Your task to perform on an android device: add a contact in the contacts app Image 0: 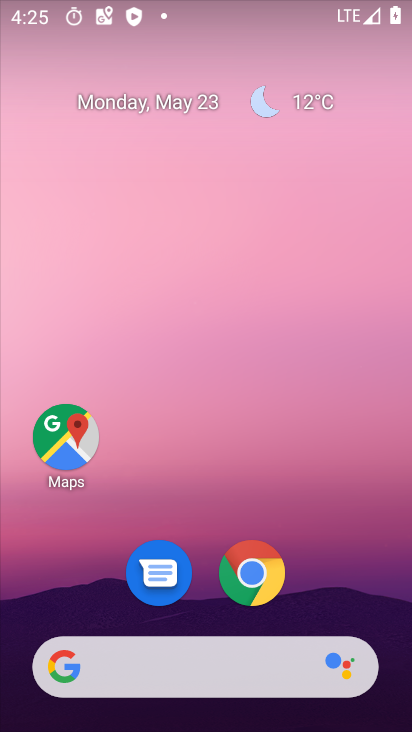
Step 0: drag from (77, 544) to (277, 222)
Your task to perform on an android device: add a contact in the contacts app Image 1: 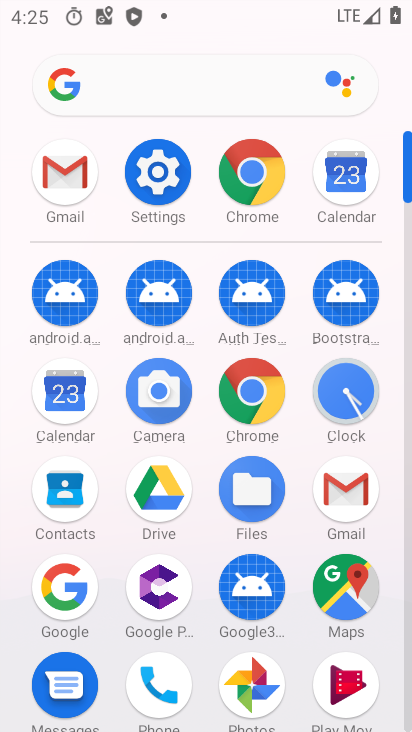
Step 1: click (163, 686)
Your task to perform on an android device: add a contact in the contacts app Image 2: 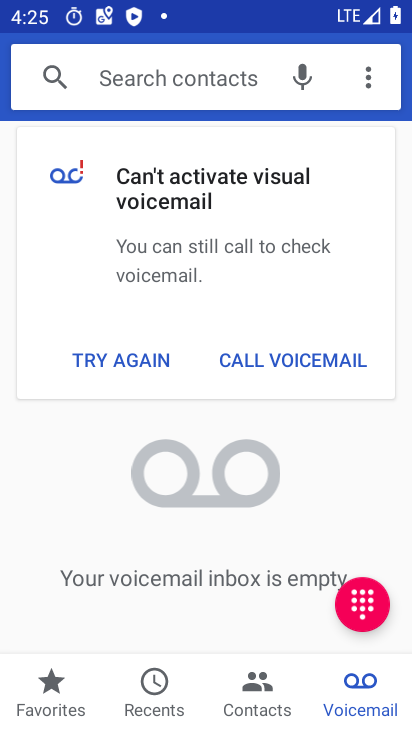
Step 2: click (261, 679)
Your task to perform on an android device: add a contact in the contacts app Image 3: 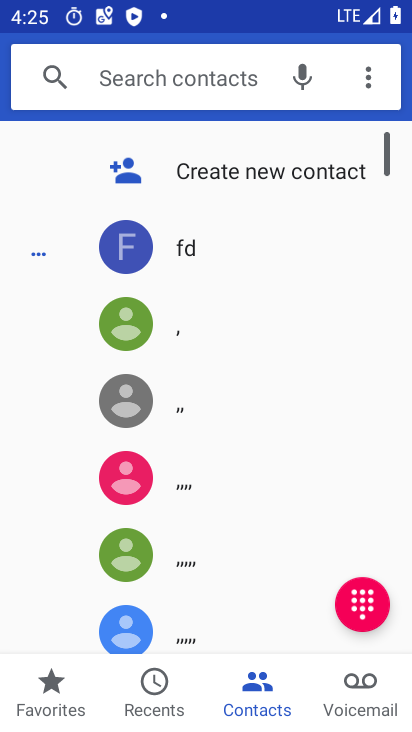
Step 3: click (244, 174)
Your task to perform on an android device: add a contact in the contacts app Image 4: 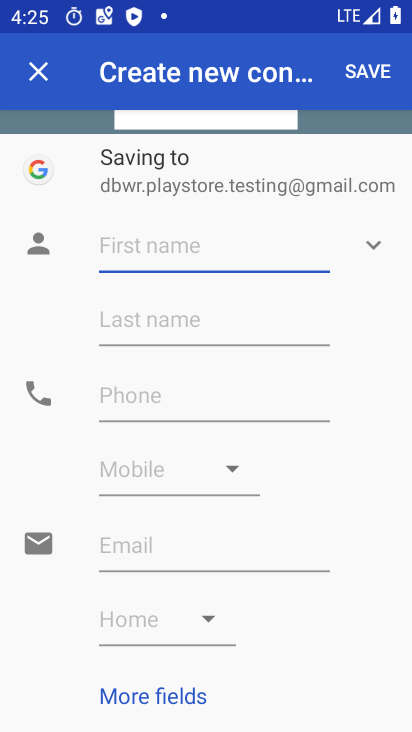
Step 4: click (228, 251)
Your task to perform on an android device: add a contact in the contacts app Image 5: 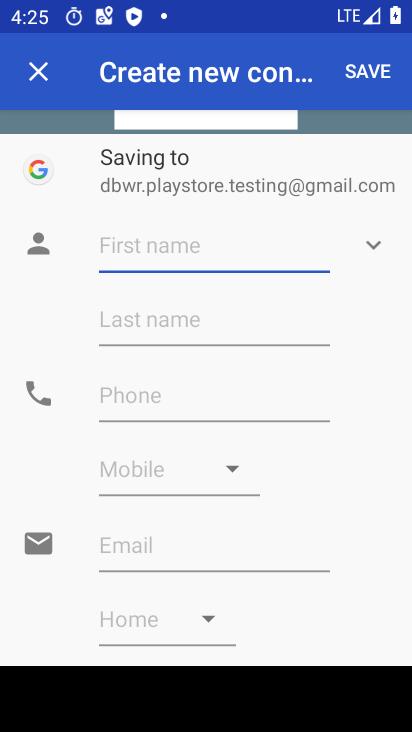
Step 5: type "ghghgh"
Your task to perform on an android device: add a contact in the contacts app Image 6: 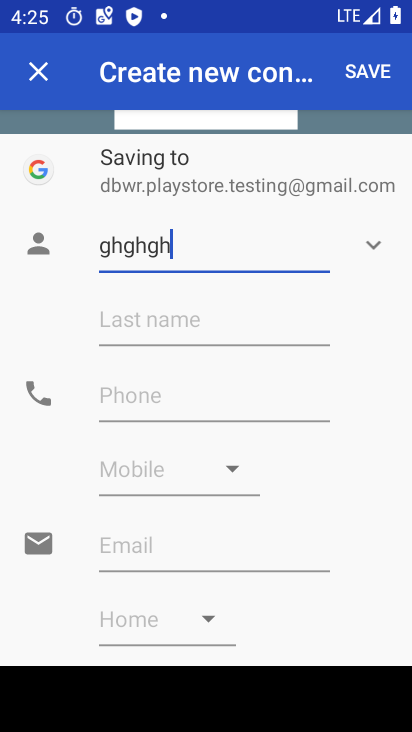
Step 6: type ""
Your task to perform on an android device: add a contact in the contacts app Image 7: 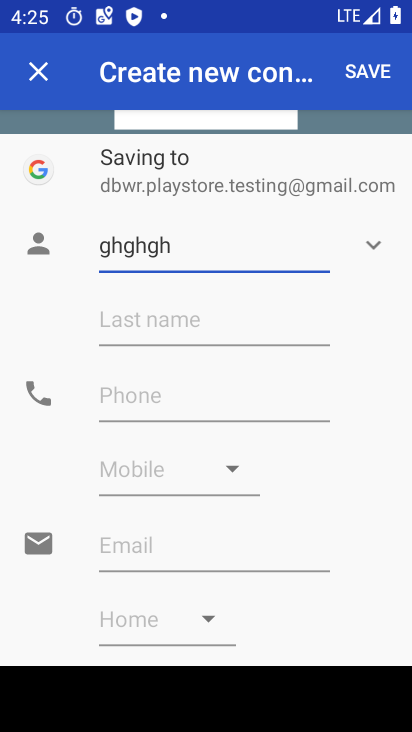
Step 7: click (377, 67)
Your task to perform on an android device: add a contact in the contacts app Image 8: 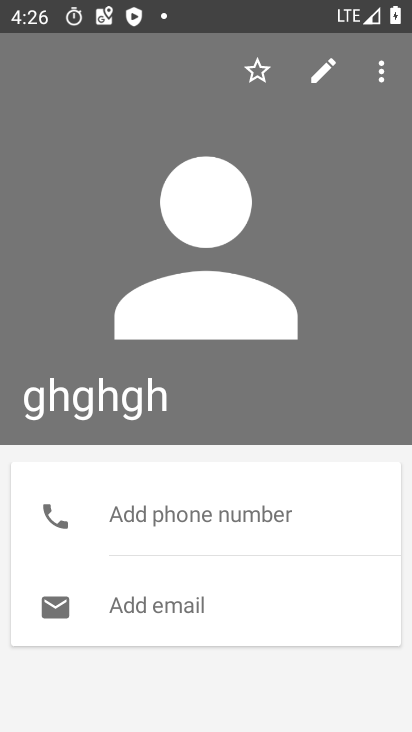
Step 8: task complete